Your task to perform on an android device: Search for the best rated drill on Lowes.com Image 0: 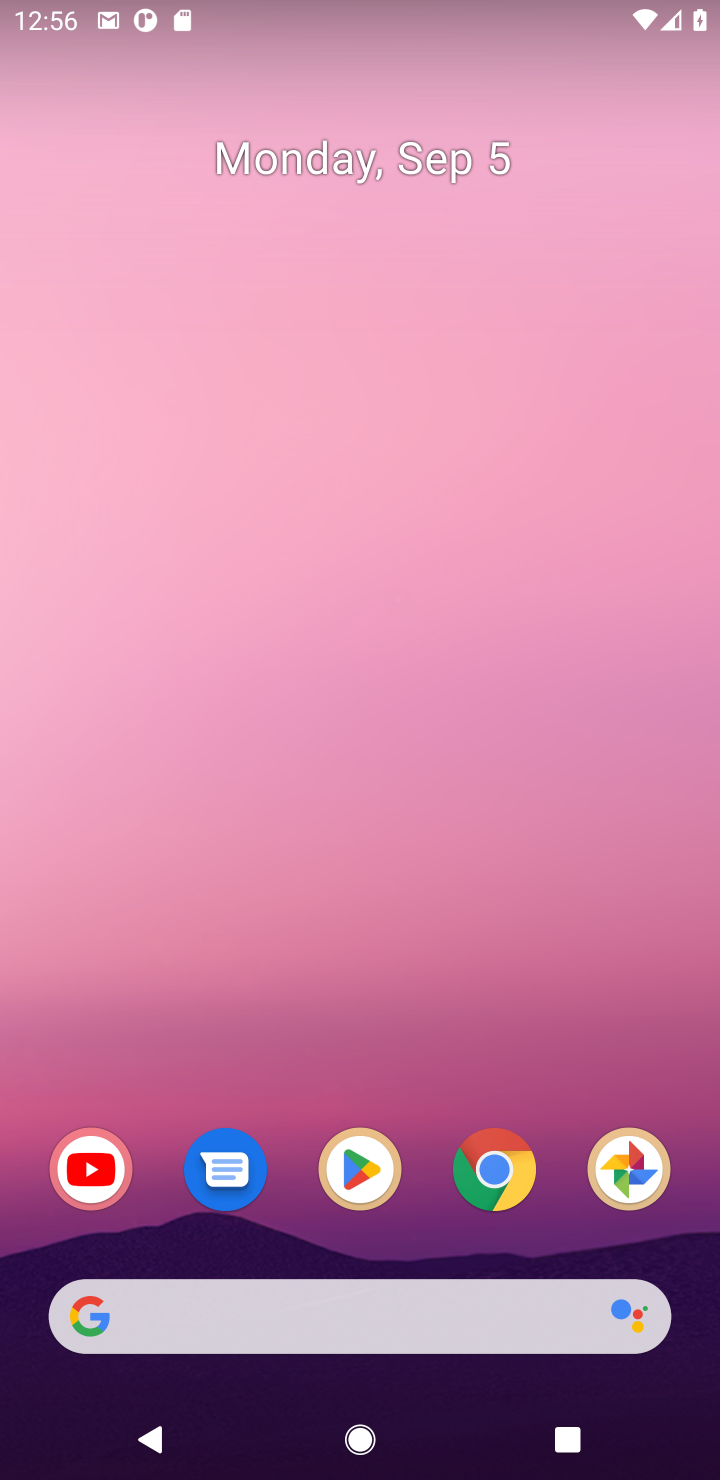
Step 0: click (486, 1358)
Your task to perform on an android device: Search for the best rated drill on Lowes.com Image 1: 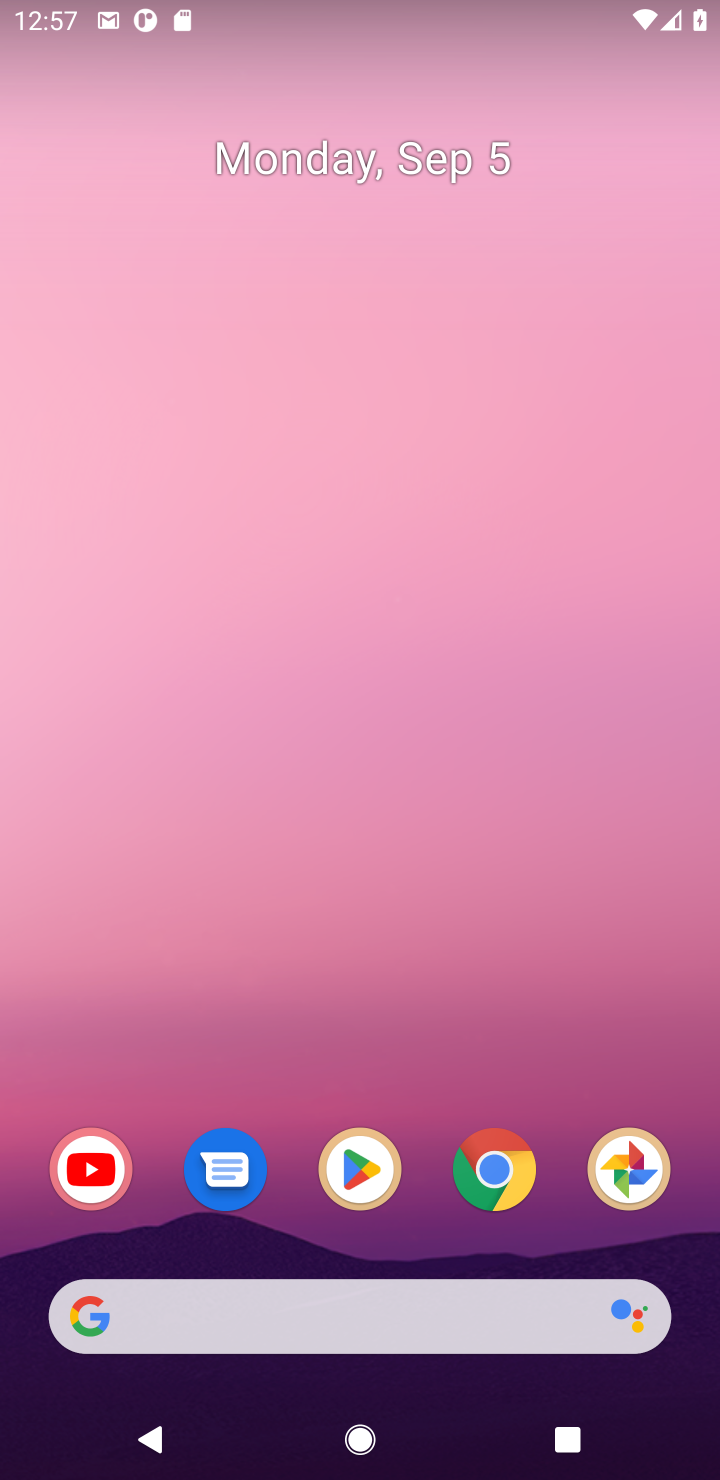
Step 1: task complete